Your task to perform on an android device: Show me recent news Image 0: 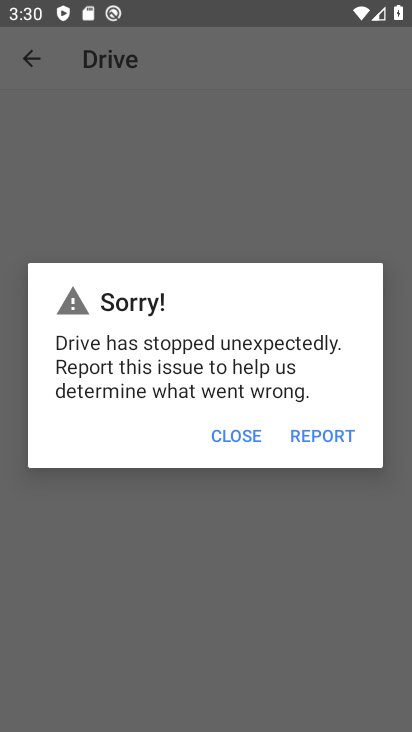
Step 0: press home button
Your task to perform on an android device: Show me recent news Image 1: 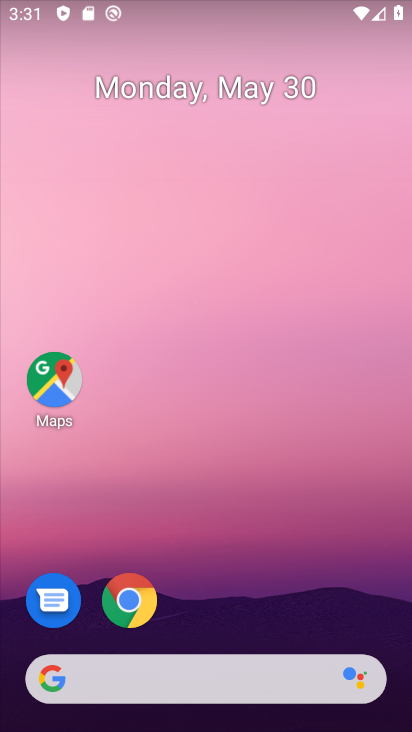
Step 1: click (166, 676)
Your task to perform on an android device: Show me recent news Image 2: 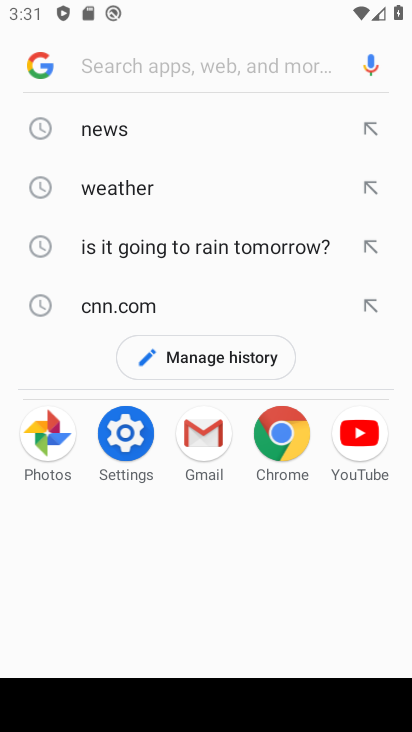
Step 2: click (211, 67)
Your task to perform on an android device: Show me recent news Image 3: 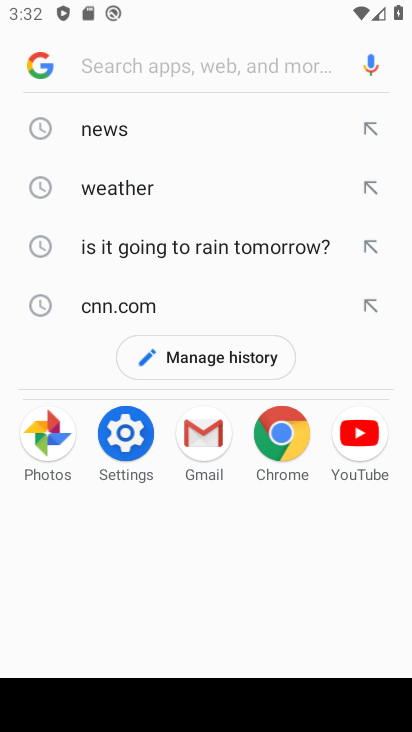
Step 3: type "recent news"
Your task to perform on an android device: Show me recent news Image 4: 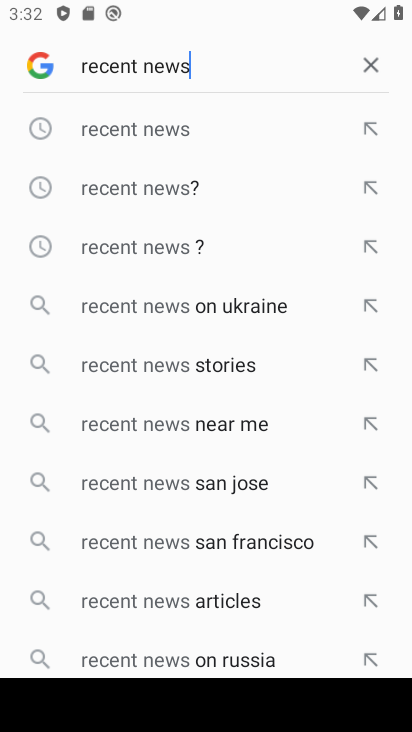
Step 4: click (183, 127)
Your task to perform on an android device: Show me recent news Image 5: 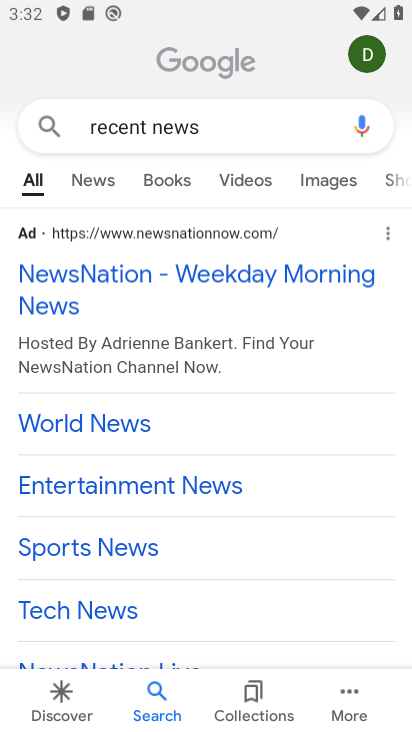
Step 5: click (132, 139)
Your task to perform on an android device: Show me recent news Image 6: 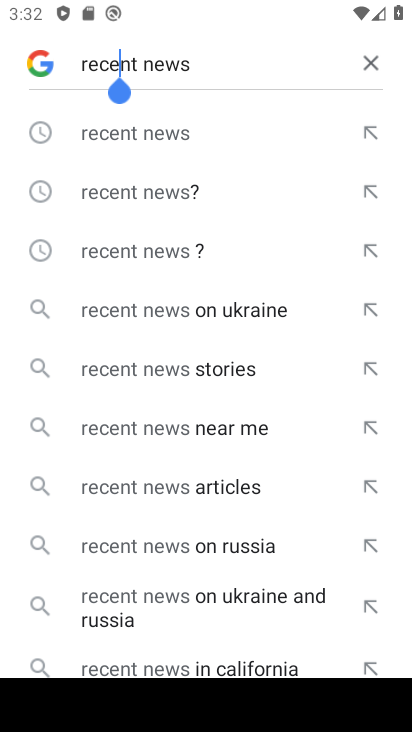
Step 6: click (164, 129)
Your task to perform on an android device: Show me recent news Image 7: 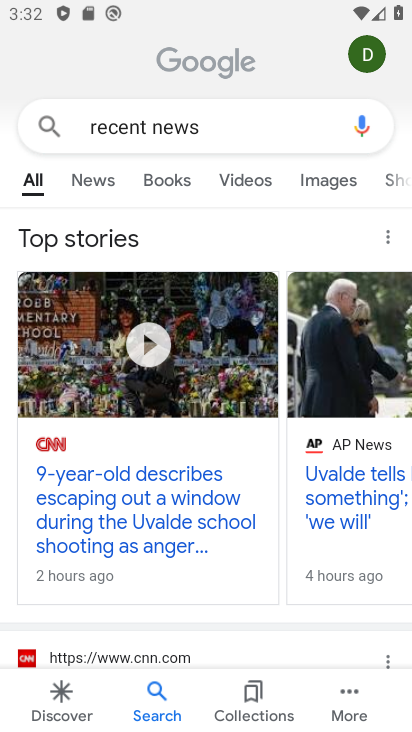
Step 7: task complete